Your task to perform on an android device: turn on the 12-hour format for clock Image 0: 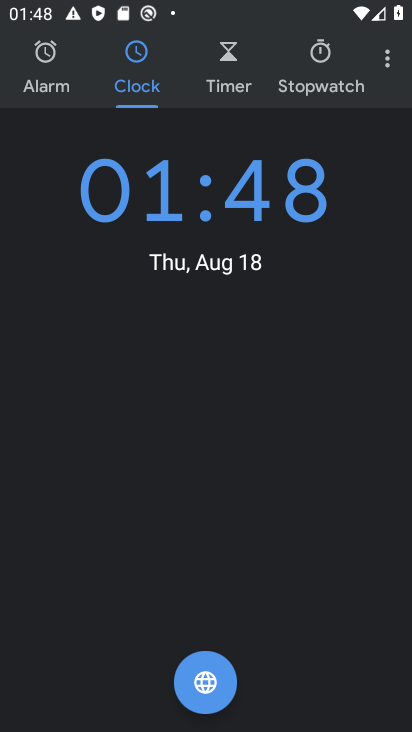
Step 0: press home button
Your task to perform on an android device: turn on the 12-hour format for clock Image 1: 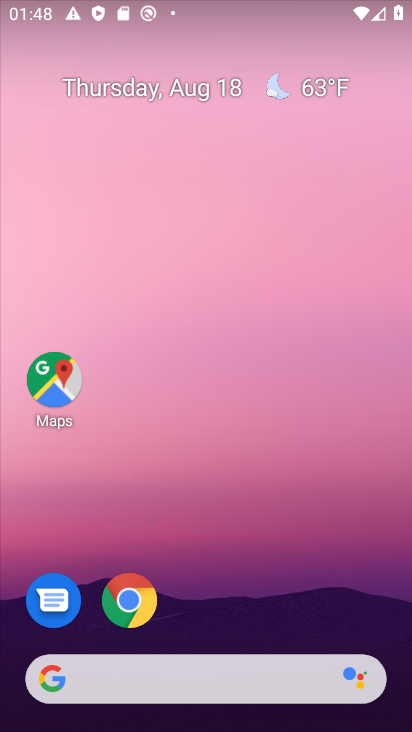
Step 1: drag from (277, 617) to (234, 229)
Your task to perform on an android device: turn on the 12-hour format for clock Image 2: 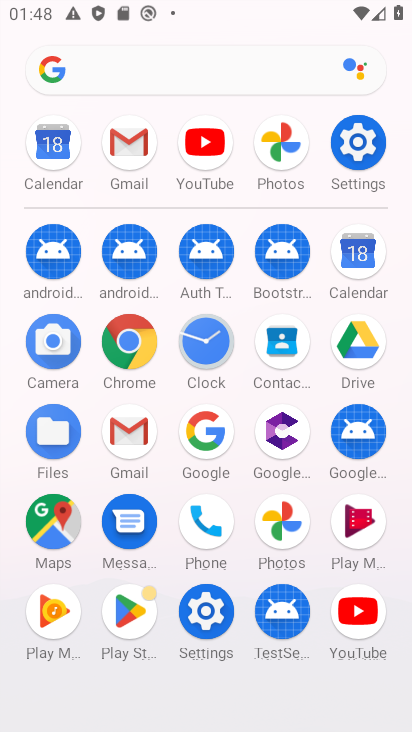
Step 2: click (208, 340)
Your task to perform on an android device: turn on the 12-hour format for clock Image 3: 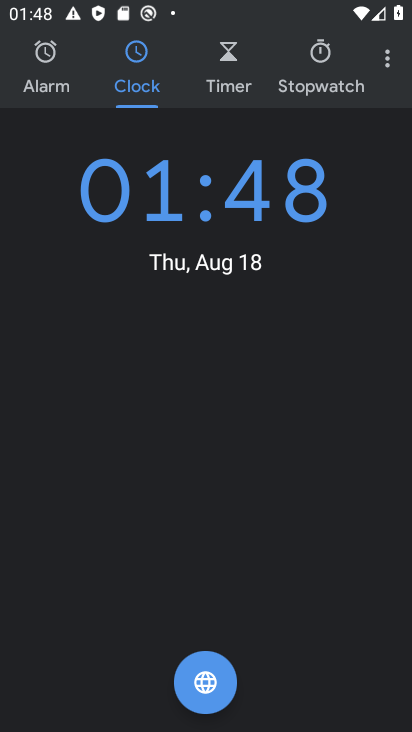
Step 3: click (387, 53)
Your task to perform on an android device: turn on the 12-hour format for clock Image 4: 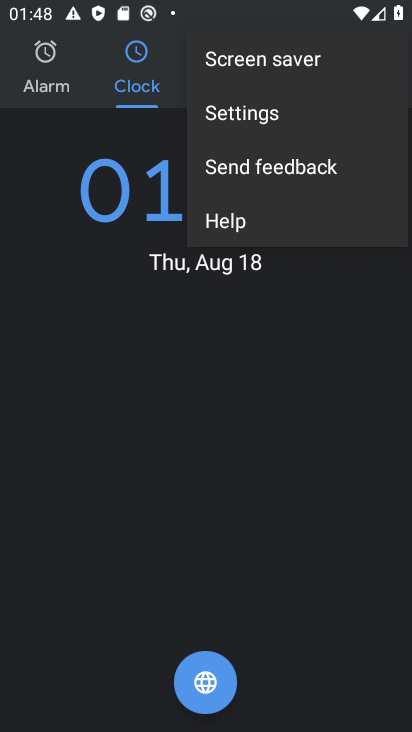
Step 4: click (274, 108)
Your task to perform on an android device: turn on the 12-hour format for clock Image 5: 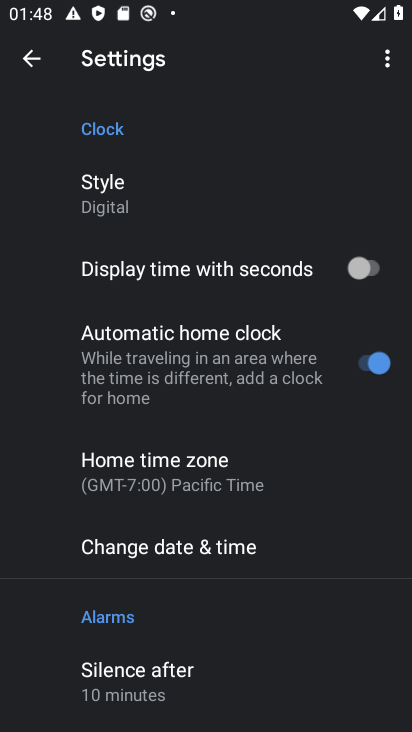
Step 5: click (169, 552)
Your task to perform on an android device: turn on the 12-hour format for clock Image 6: 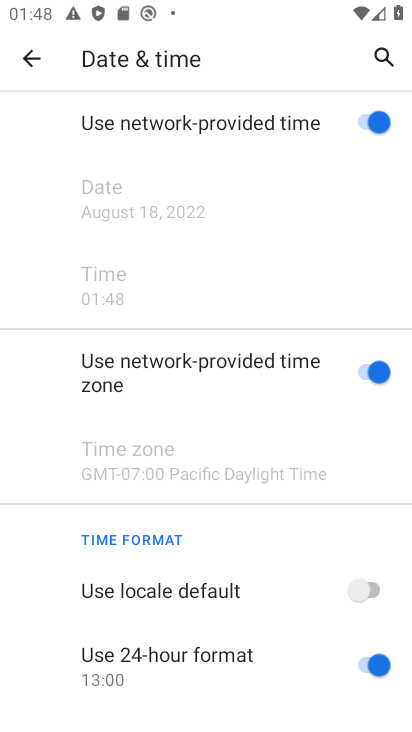
Step 6: click (364, 583)
Your task to perform on an android device: turn on the 12-hour format for clock Image 7: 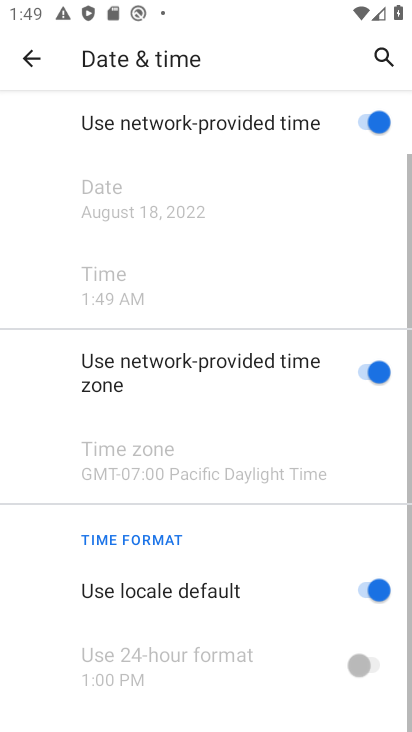
Step 7: task complete